Your task to perform on an android device: turn on the 12-hour format for clock Image 0: 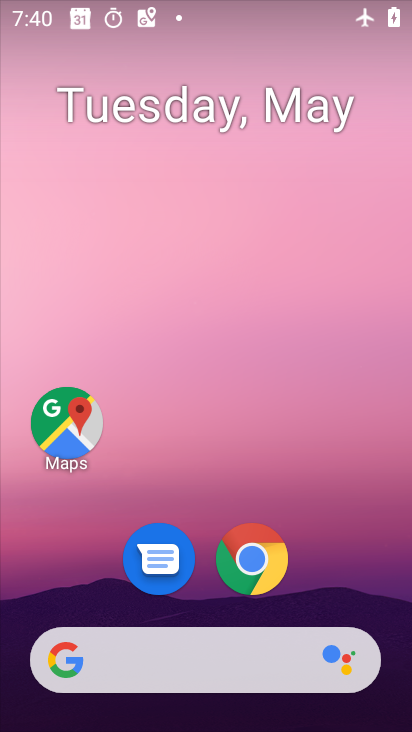
Step 0: drag from (383, 619) to (285, 37)
Your task to perform on an android device: turn on the 12-hour format for clock Image 1: 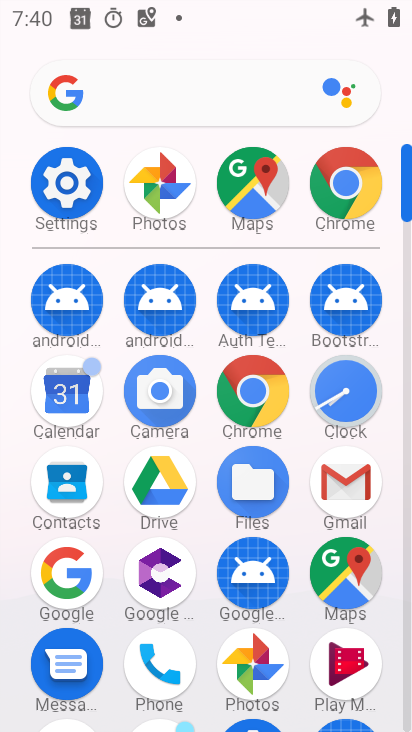
Step 1: click (329, 395)
Your task to perform on an android device: turn on the 12-hour format for clock Image 2: 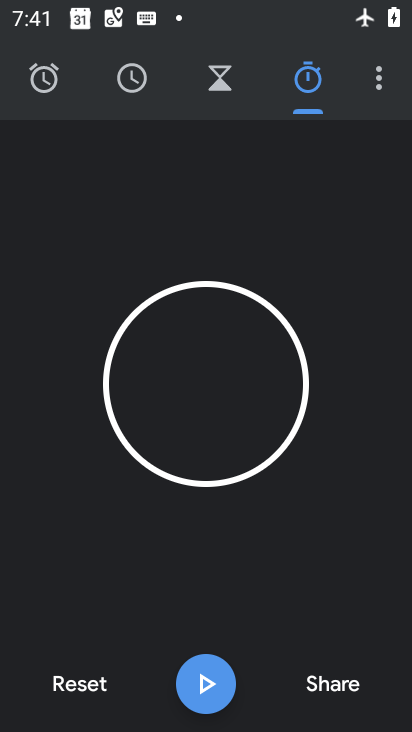
Step 2: click (371, 75)
Your task to perform on an android device: turn on the 12-hour format for clock Image 3: 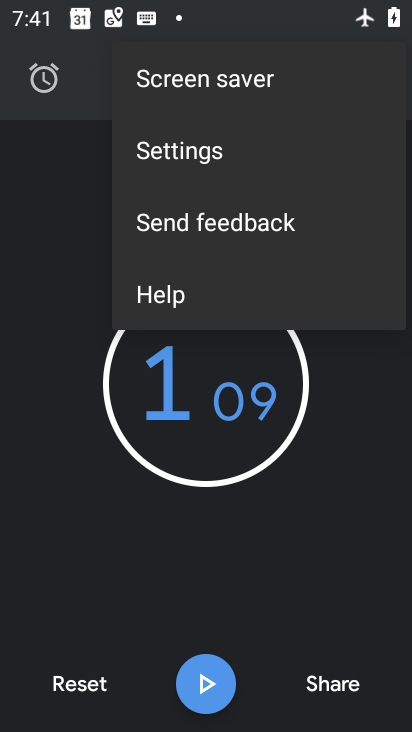
Step 3: click (231, 152)
Your task to perform on an android device: turn on the 12-hour format for clock Image 4: 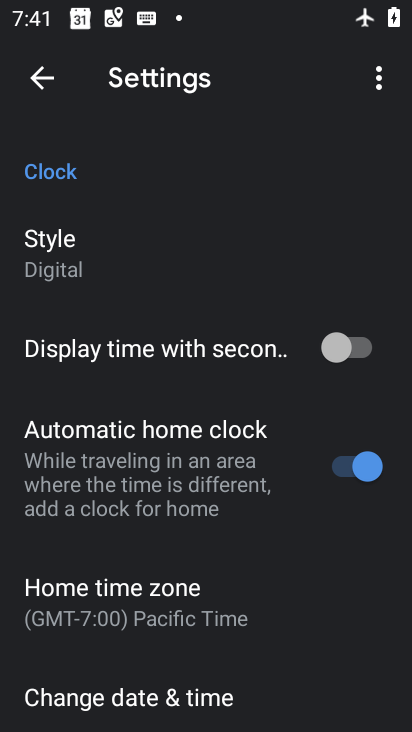
Step 4: click (194, 690)
Your task to perform on an android device: turn on the 12-hour format for clock Image 5: 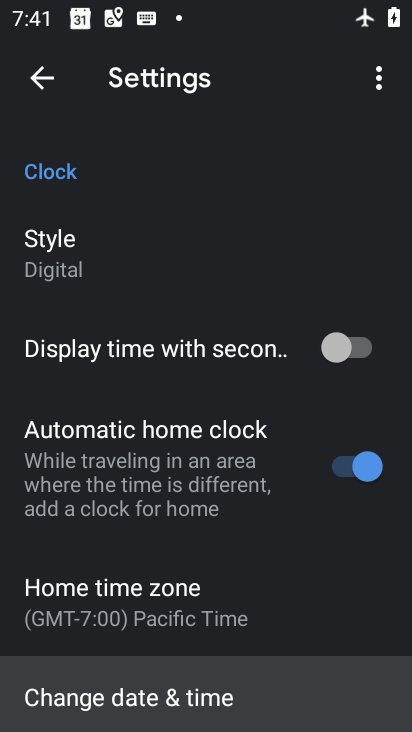
Step 5: task complete